Your task to perform on an android device: Open Yahoo.com Image 0: 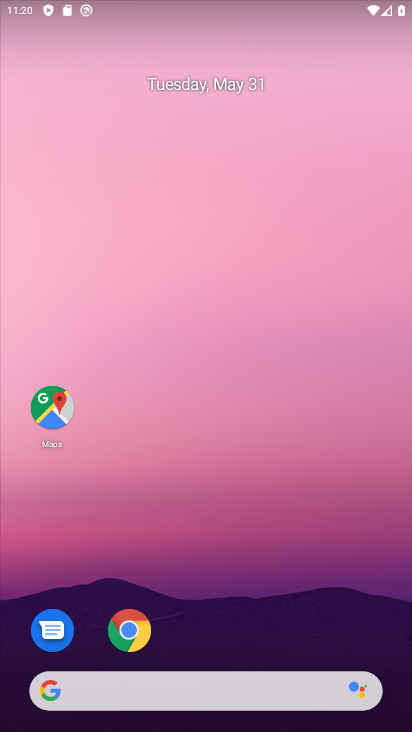
Step 0: click (254, 690)
Your task to perform on an android device: Open Yahoo.com Image 1: 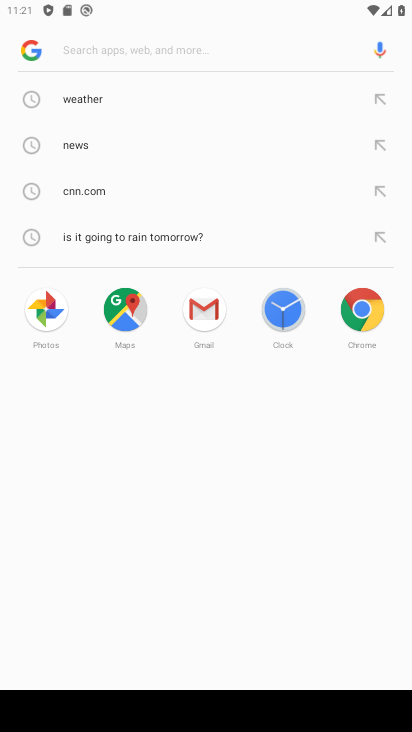
Step 1: type "Yahoo.com"
Your task to perform on an android device: Open Yahoo.com Image 2: 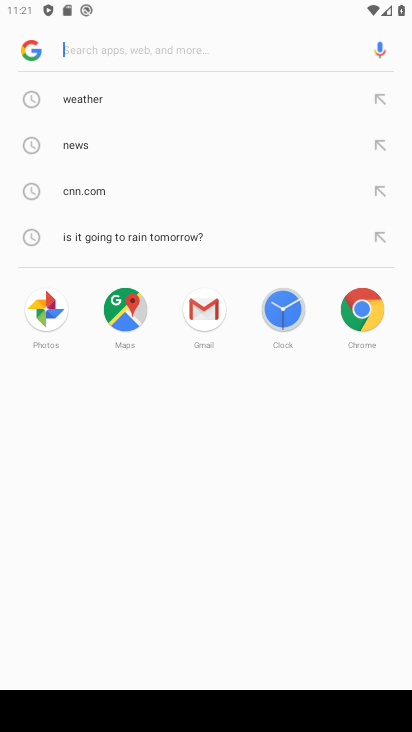
Step 2: click (133, 46)
Your task to perform on an android device: Open Yahoo.com Image 3: 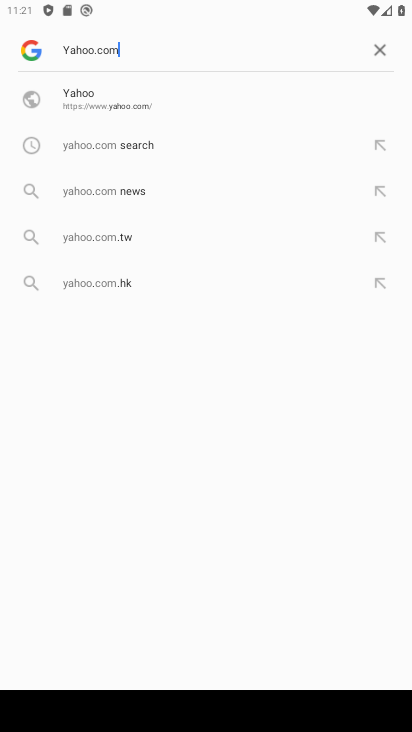
Step 3: click (131, 115)
Your task to perform on an android device: Open Yahoo.com Image 4: 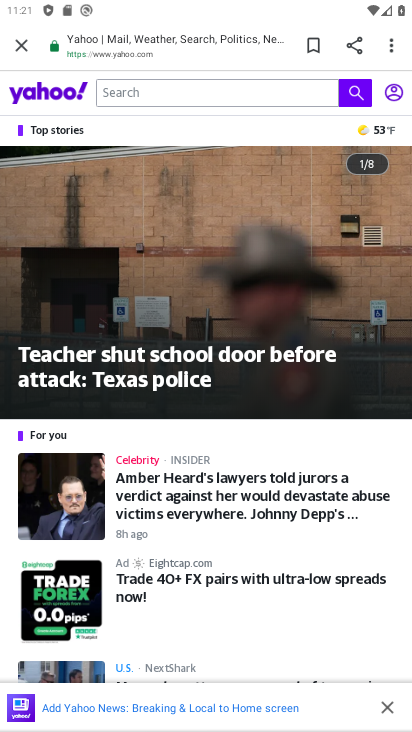
Step 4: task complete